Your task to perform on an android device: change the upload size in google photos Image 0: 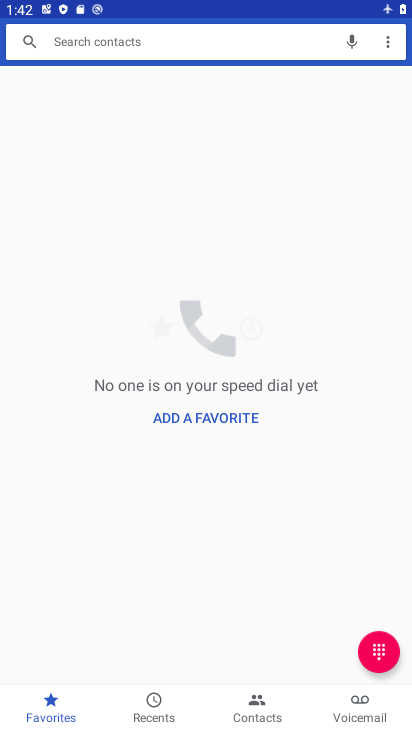
Step 0: press home button
Your task to perform on an android device: change the upload size in google photos Image 1: 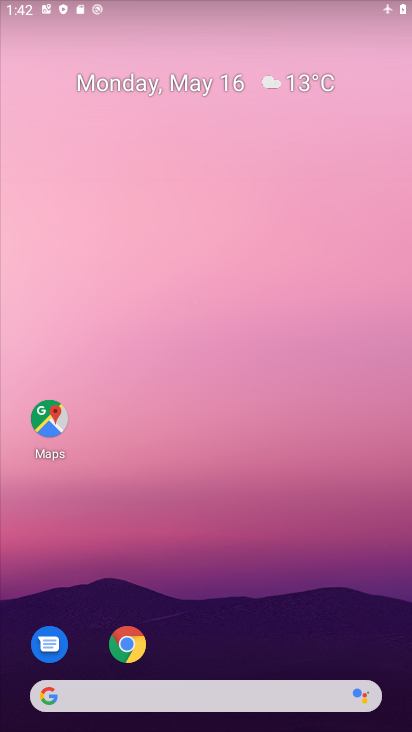
Step 1: drag from (211, 498) to (211, 163)
Your task to perform on an android device: change the upload size in google photos Image 2: 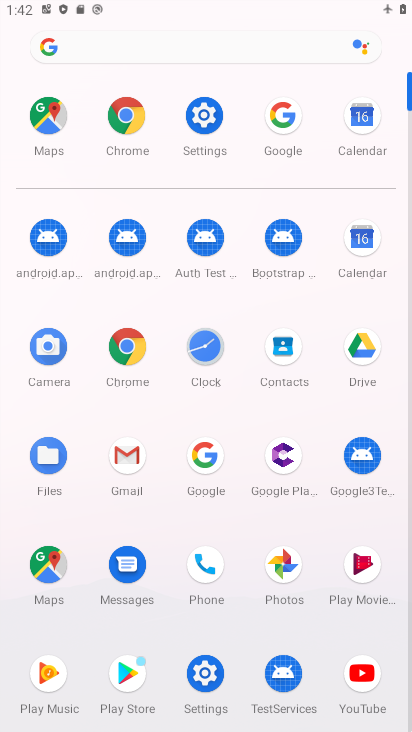
Step 2: click (279, 589)
Your task to perform on an android device: change the upload size in google photos Image 3: 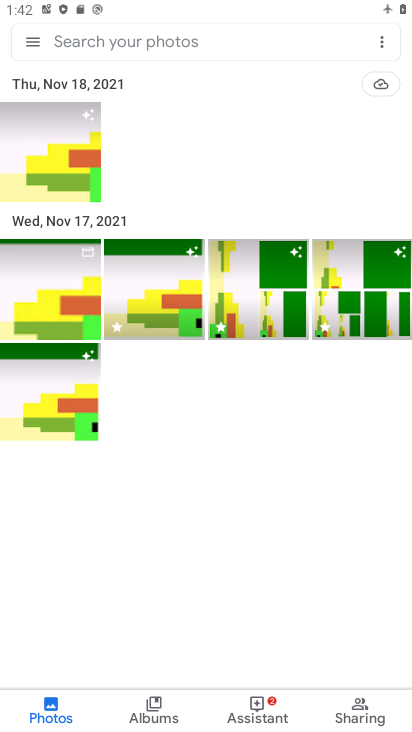
Step 3: click (37, 46)
Your task to perform on an android device: change the upload size in google photos Image 4: 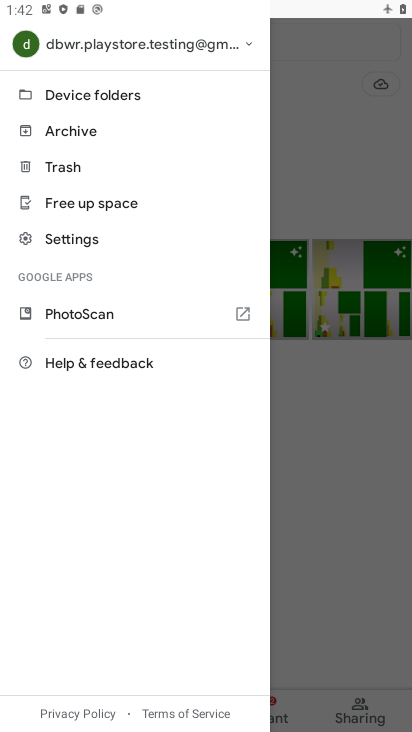
Step 4: click (67, 244)
Your task to perform on an android device: change the upload size in google photos Image 5: 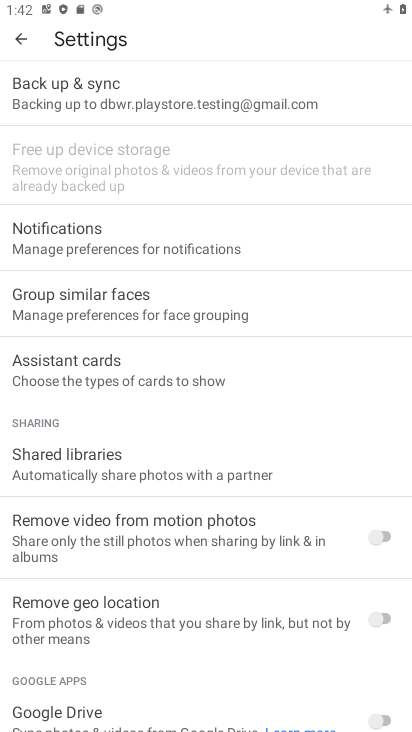
Step 5: click (152, 108)
Your task to perform on an android device: change the upload size in google photos Image 6: 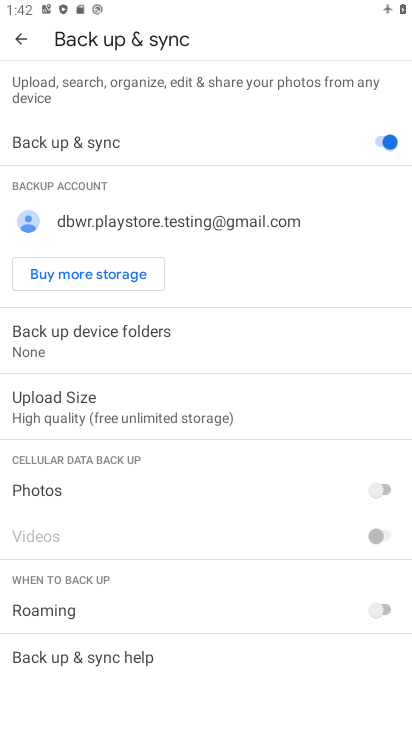
Step 6: click (114, 420)
Your task to perform on an android device: change the upload size in google photos Image 7: 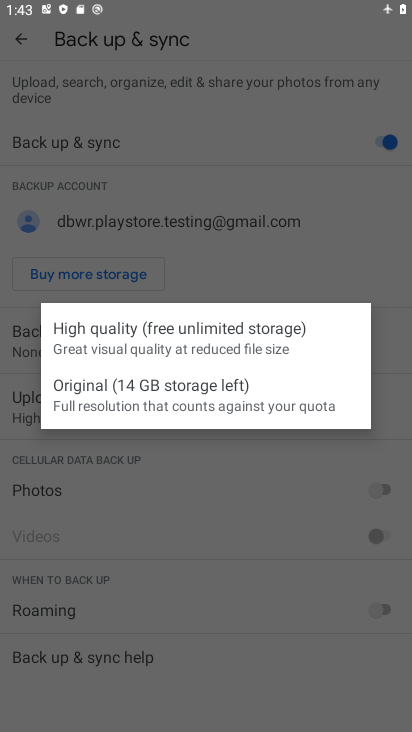
Step 7: click (144, 401)
Your task to perform on an android device: change the upload size in google photos Image 8: 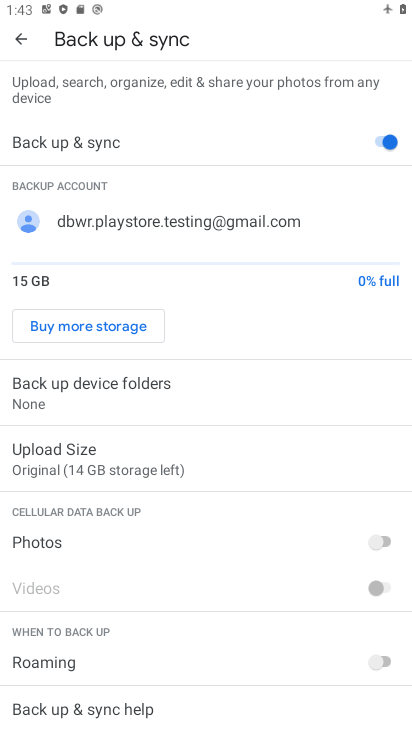
Step 8: task complete